Your task to perform on an android device: Go to calendar. Show me events next week Image 0: 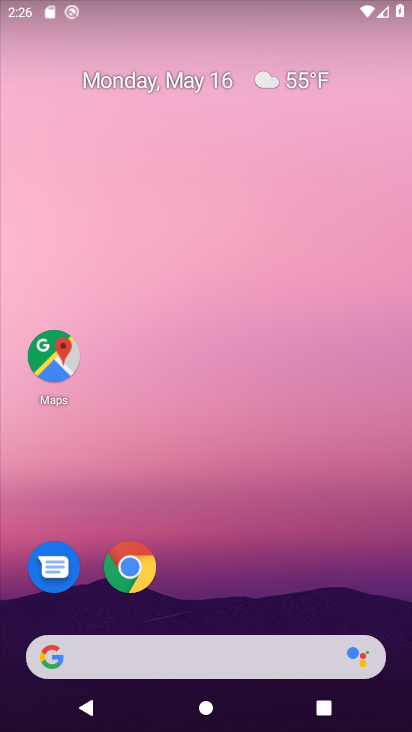
Step 0: drag from (317, 628) to (306, 3)
Your task to perform on an android device: Go to calendar. Show me events next week Image 1: 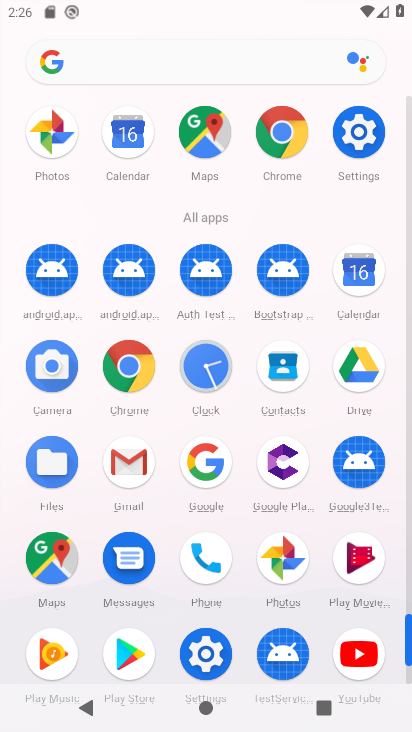
Step 1: click (365, 281)
Your task to perform on an android device: Go to calendar. Show me events next week Image 2: 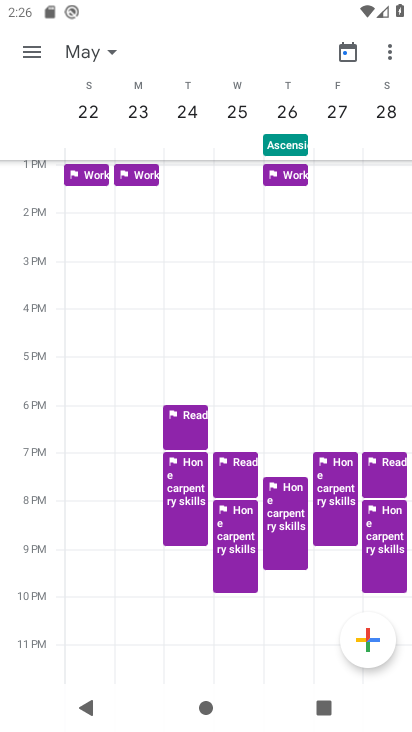
Step 2: task complete